Your task to perform on an android device: Turn on the flashlight Image 0: 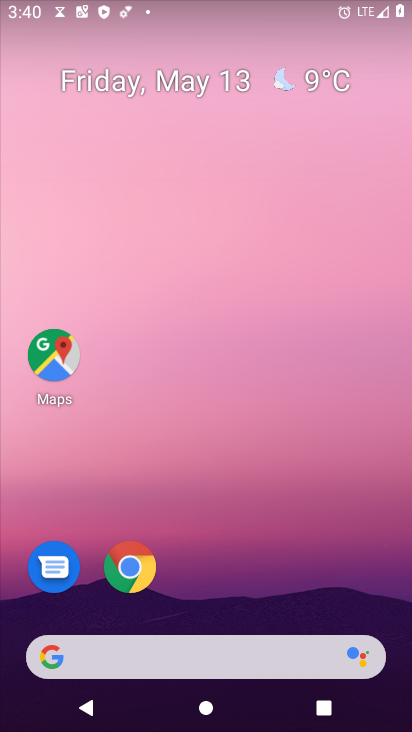
Step 0: drag from (192, 3) to (208, 670)
Your task to perform on an android device: Turn on the flashlight Image 1: 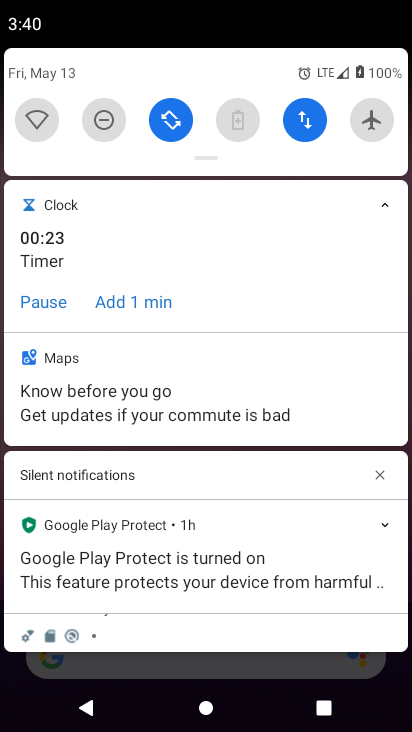
Step 1: task complete